Your task to perform on an android device: open wifi settings Image 0: 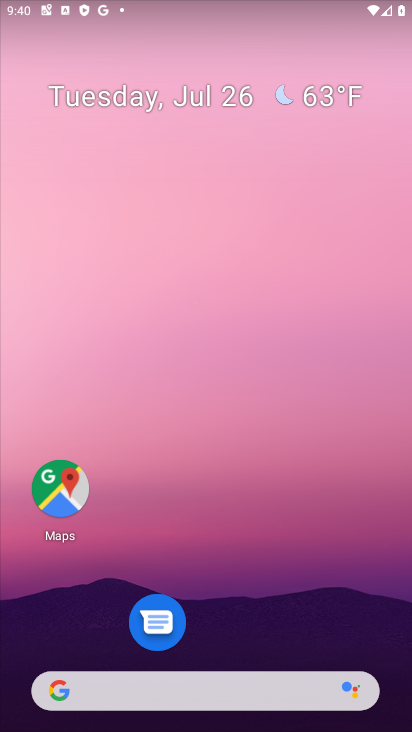
Step 0: drag from (255, 595) to (278, 1)
Your task to perform on an android device: open wifi settings Image 1: 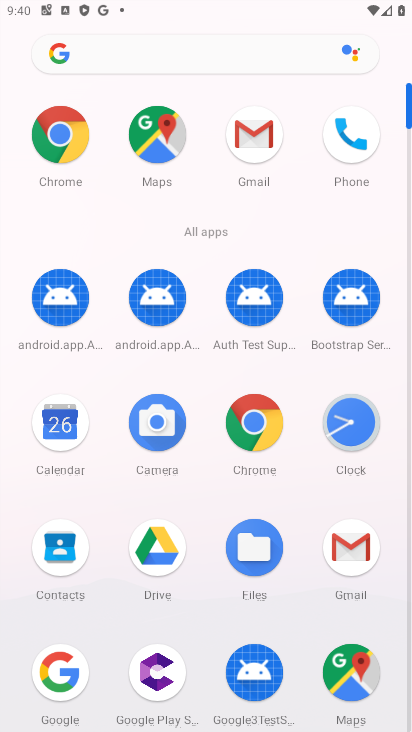
Step 1: drag from (368, 633) to (304, 82)
Your task to perform on an android device: open wifi settings Image 2: 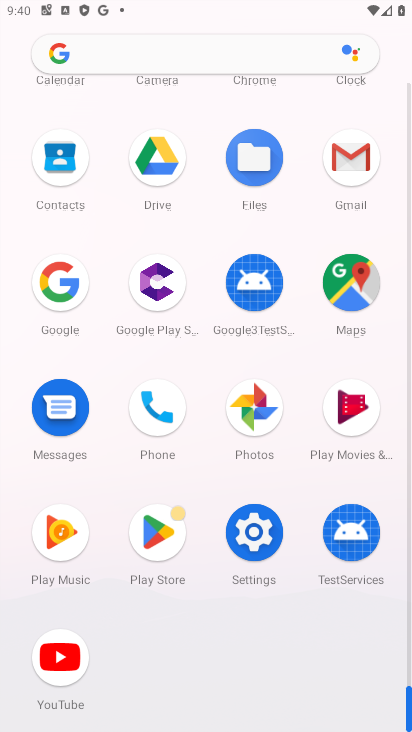
Step 2: click (217, 565)
Your task to perform on an android device: open wifi settings Image 3: 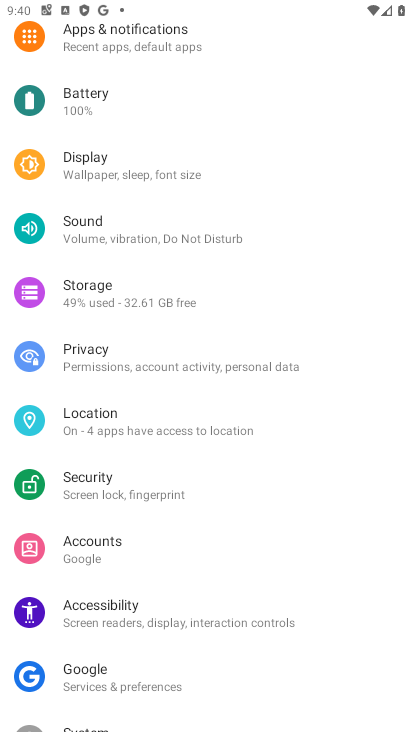
Step 3: drag from (205, 96) to (318, 721)
Your task to perform on an android device: open wifi settings Image 4: 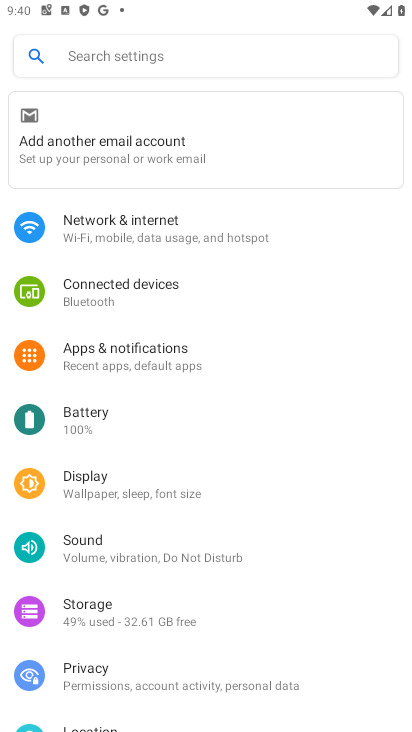
Step 4: click (158, 230)
Your task to perform on an android device: open wifi settings Image 5: 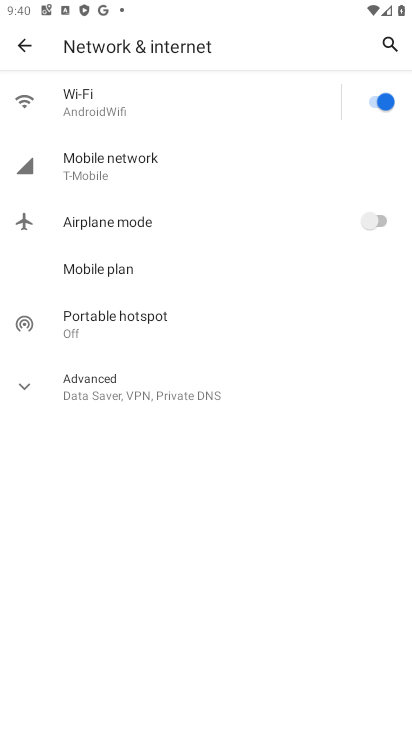
Step 5: click (126, 104)
Your task to perform on an android device: open wifi settings Image 6: 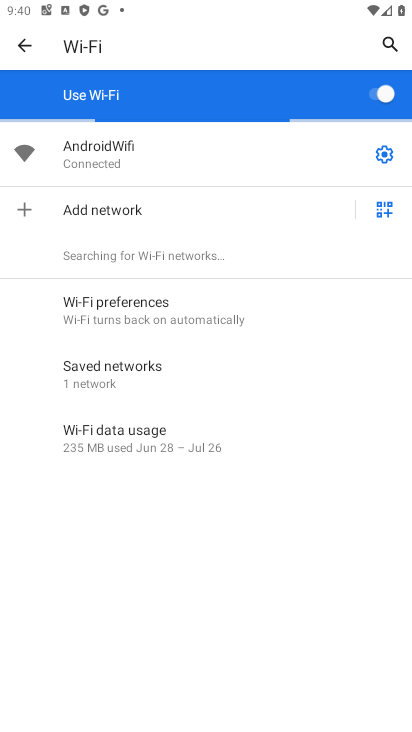
Step 6: task complete